Your task to perform on an android device: Go to sound settings Image 0: 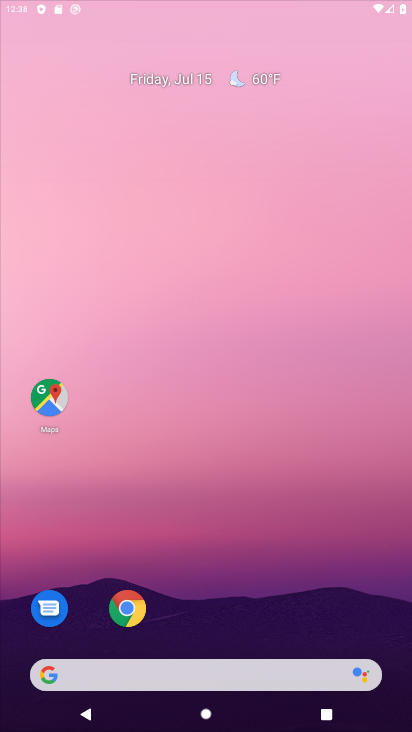
Step 0: drag from (278, 556) to (256, 66)
Your task to perform on an android device: Go to sound settings Image 1: 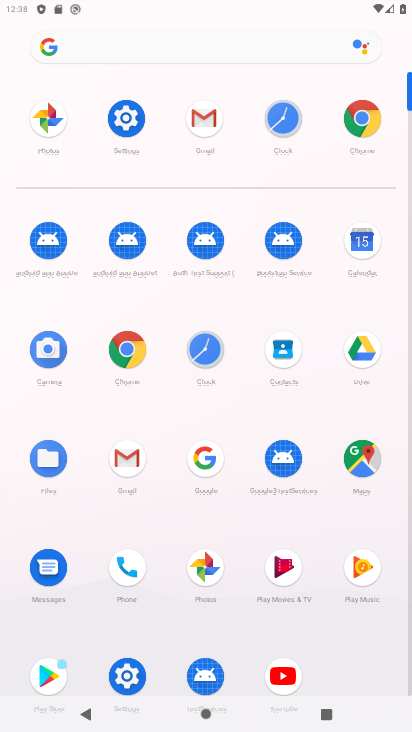
Step 1: click (126, 672)
Your task to perform on an android device: Go to sound settings Image 2: 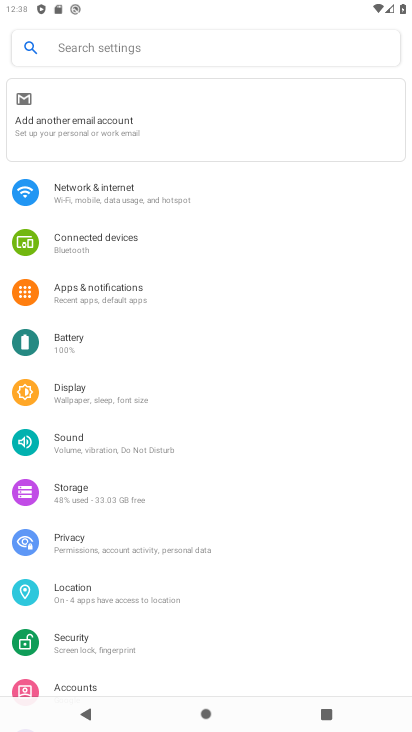
Step 2: click (76, 441)
Your task to perform on an android device: Go to sound settings Image 3: 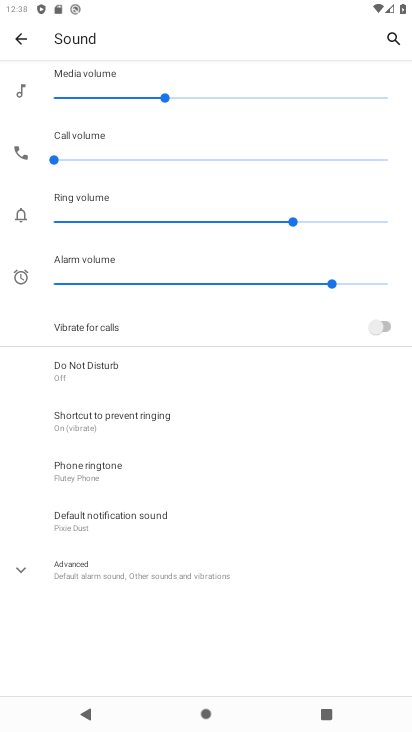
Step 3: task complete